Your task to perform on an android device: turn off wifi Image 0: 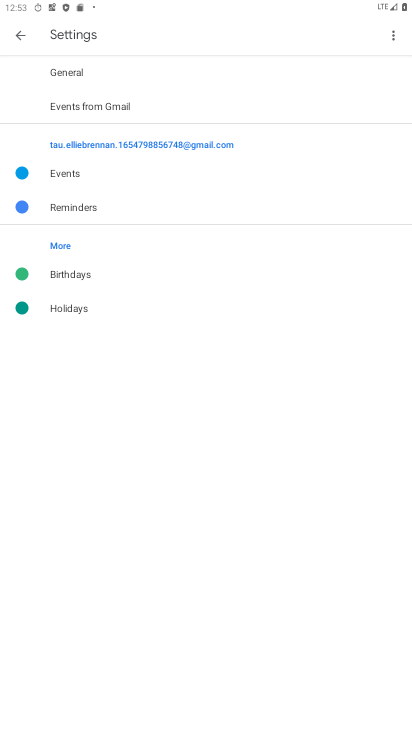
Step 0: press home button
Your task to perform on an android device: turn off wifi Image 1: 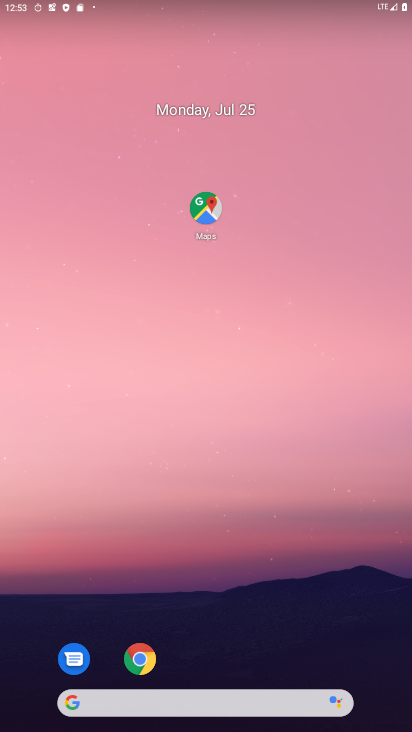
Step 1: drag from (32, 678) to (268, 9)
Your task to perform on an android device: turn off wifi Image 2: 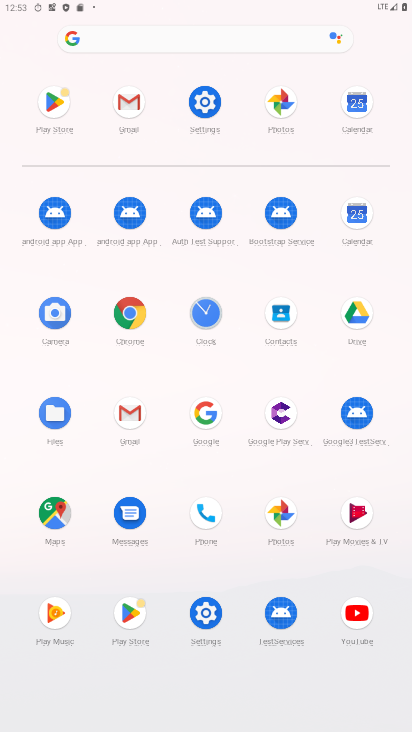
Step 2: click (199, 615)
Your task to perform on an android device: turn off wifi Image 3: 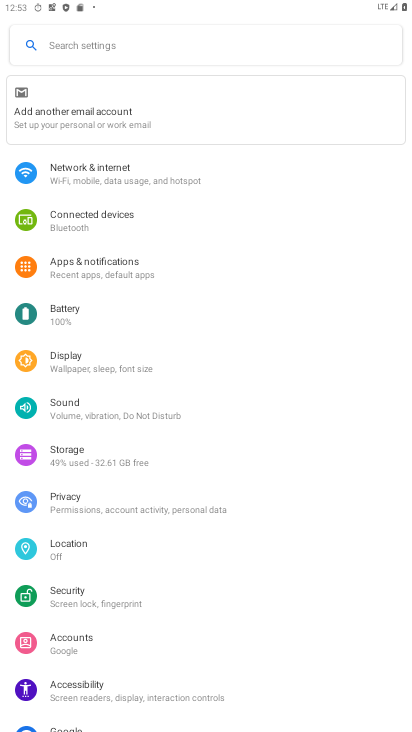
Step 3: click (105, 170)
Your task to perform on an android device: turn off wifi Image 4: 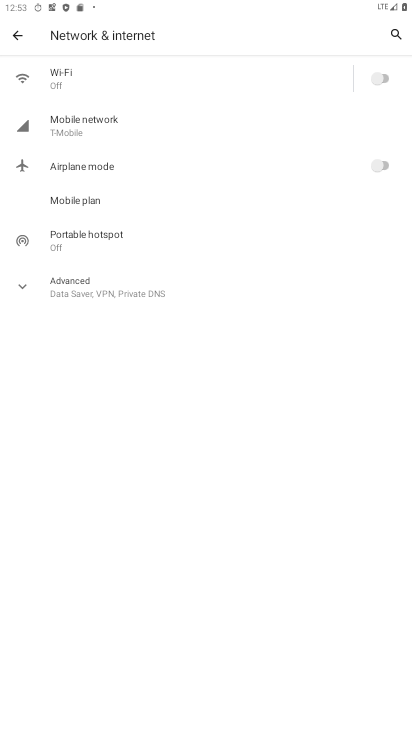
Step 4: task complete